Your task to perform on an android device: Open Yahoo.com Image 0: 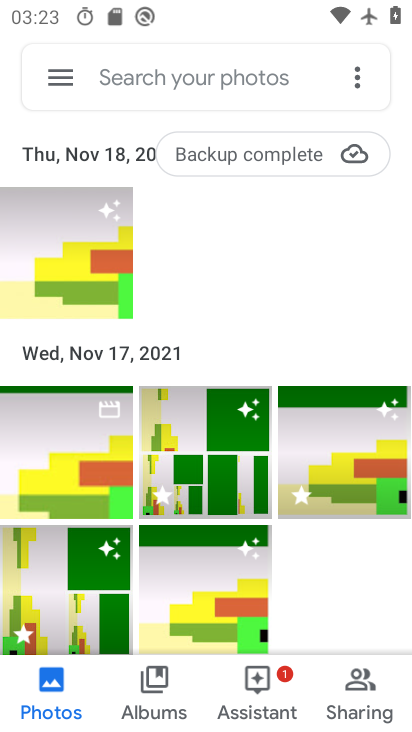
Step 0: press home button
Your task to perform on an android device: Open Yahoo.com Image 1: 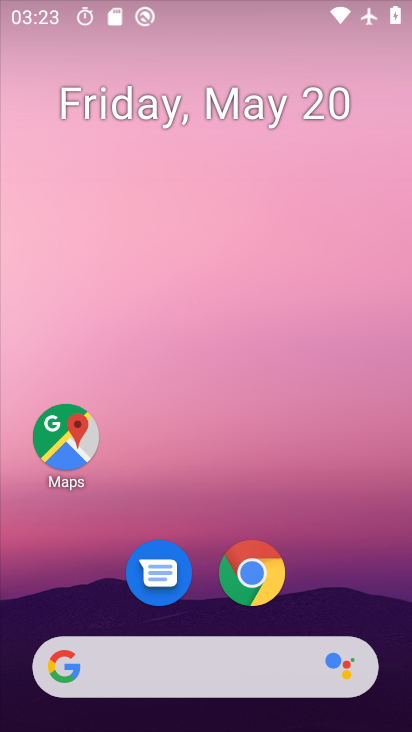
Step 1: click (261, 592)
Your task to perform on an android device: Open Yahoo.com Image 2: 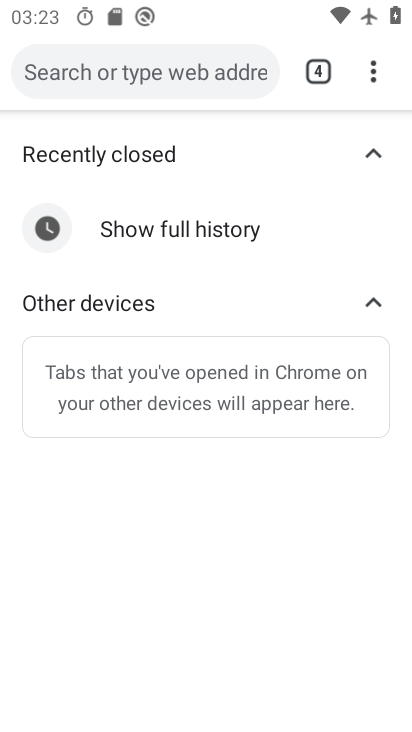
Step 2: click (308, 80)
Your task to perform on an android device: Open Yahoo.com Image 3: 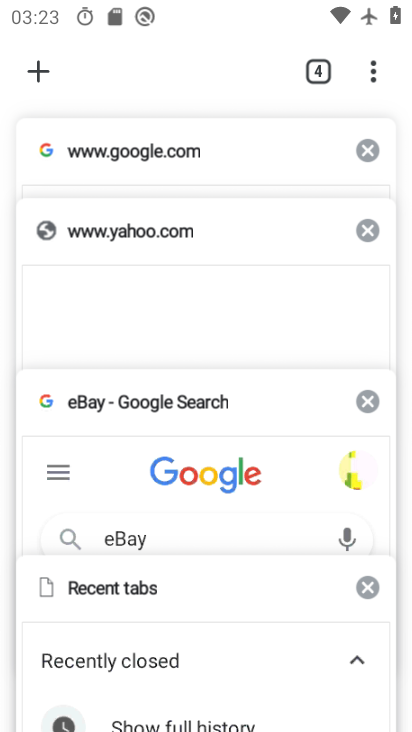
Step 3: click (38, 73)
Your task to perform on an android device: Open Yahoo.com Image 4: 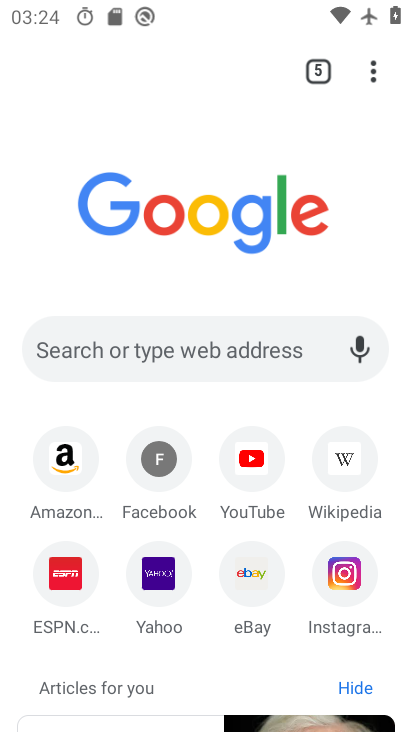
Step 4: click (148, 592)
Your task to perform on an android device: Open Yahoo.com Image 5: 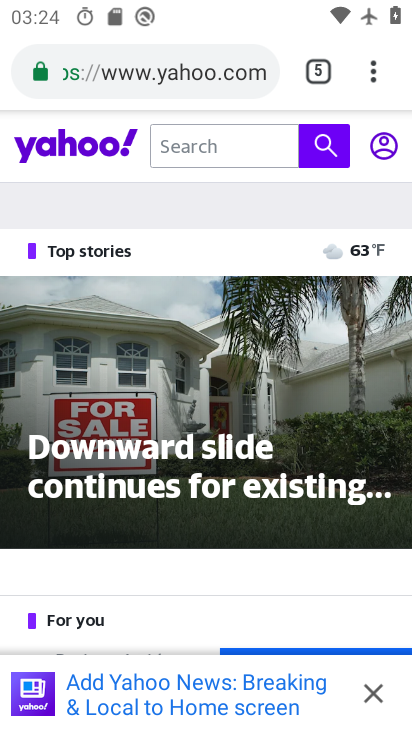
Step 5: task complete